Your task to perform on an android device: Open Google Maps Image 0: 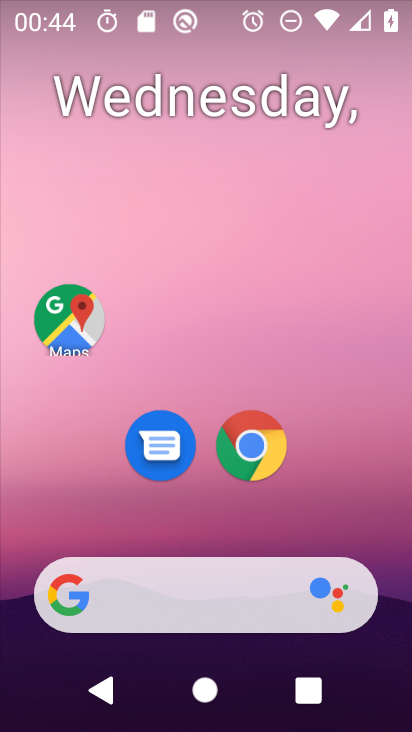
Step 0: drag from (318, 431) to (299, 67)
Your task to perform on an android device: Open Google Maps Image 1: 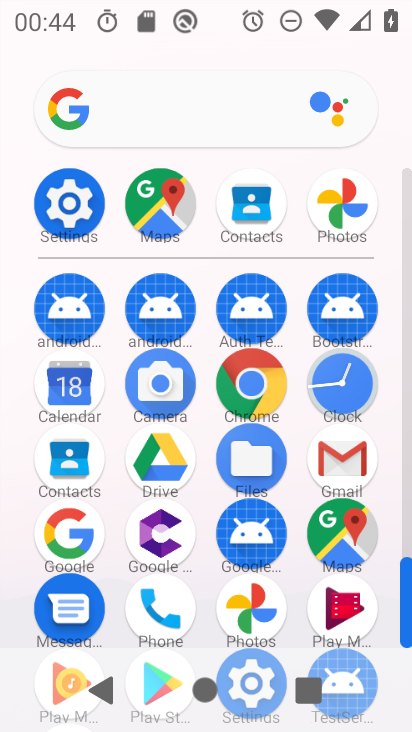
Step 1: click (155, 209)
Your task to perform on an android device: Open Google Maps Image 2: 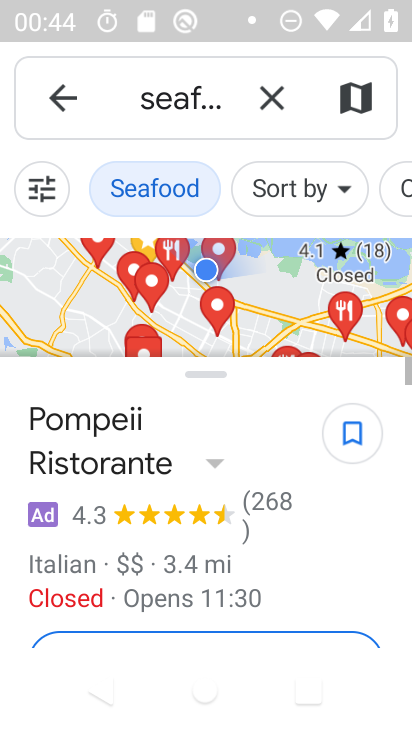
Step 2: click (79, 97)
Your task to perform on an android device: Open Google Maps Image 3: 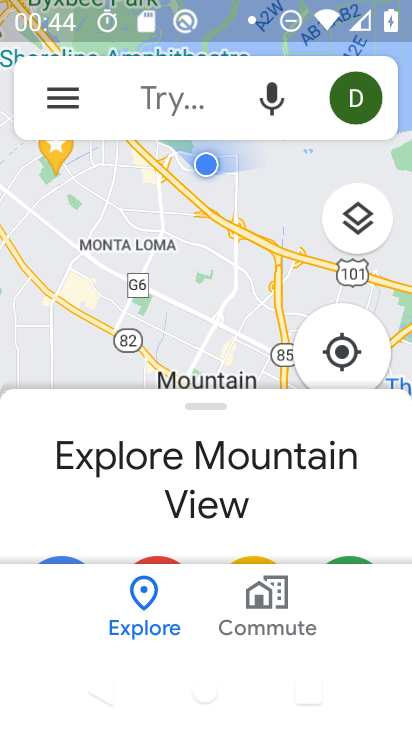
Step 3: task complete